Your task to perform on an android device: Open privacy settings Image 0: 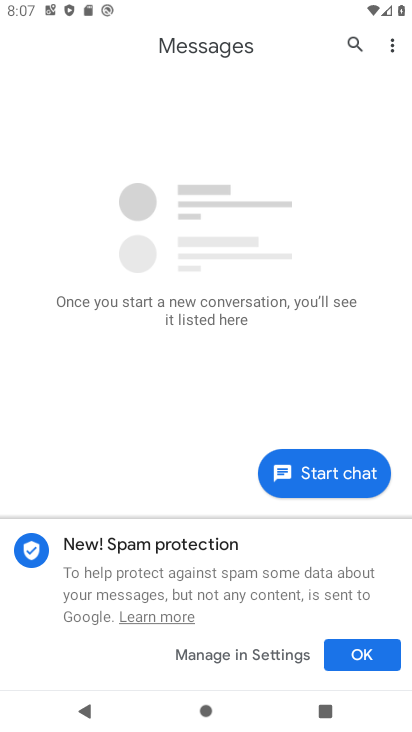
Step 0: press home button
Your task to perform on an android device: Open privacy settings Image 1: 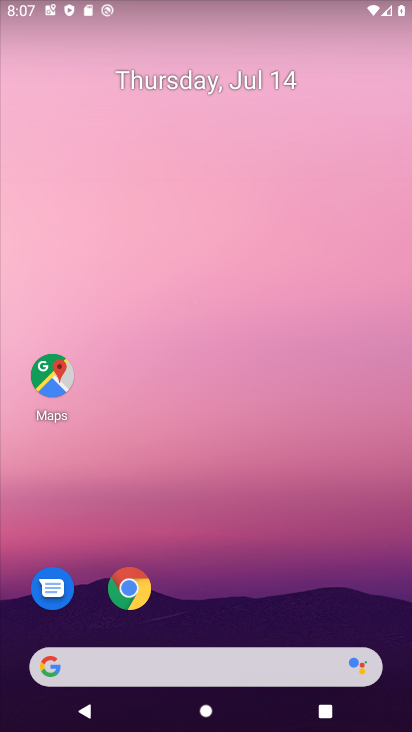
Step 1: drag from (264, 420) to (262, 76)
Your task to perform on an android device: Open privacy settings Image 2: 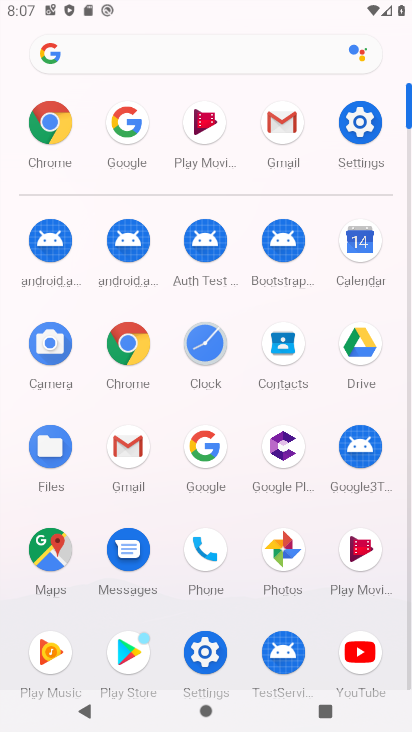
Step 2: click (367, 111)
Your task to perform on an android device: Open privacy settings Image 3: 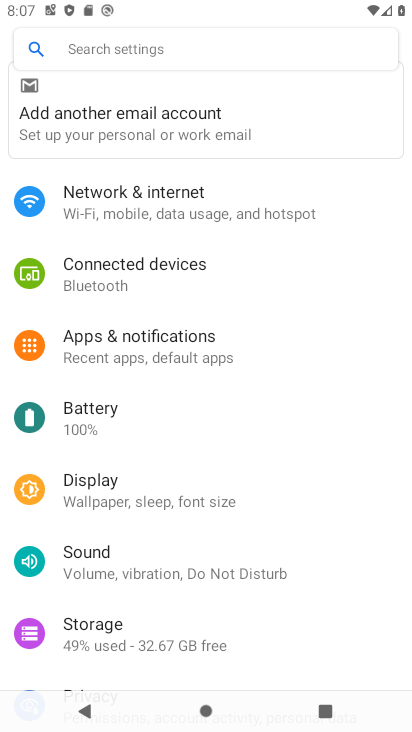
Step 3: drag from (291, 605) to (297, 284)
Your task to perform on an android device: Open privacy settings Image 4: 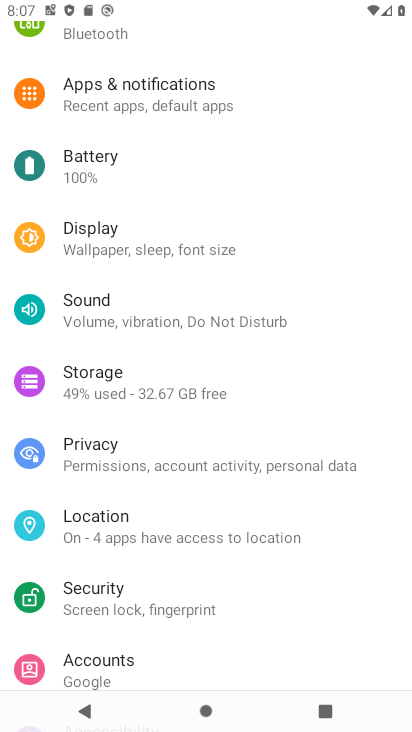
Step 4: drag from (188, 627) to (211, 326)
Your task to perform on an android device: Open privacy settings Image 5: 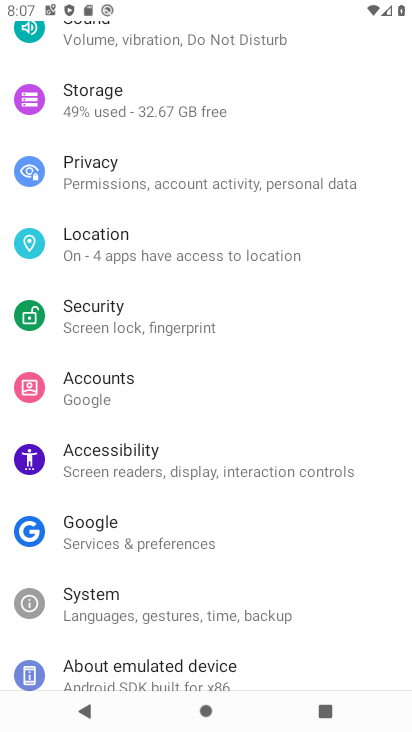
Step 5: click (161, 177)
Your task to perform on an android device: Open privacy settings Image 6: 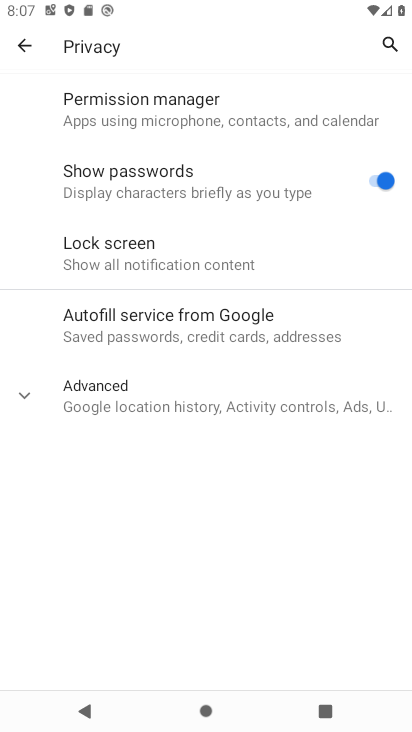
Step 6: task complete